Your task to perform on an android device: search for starred emails in the gmail app Image 0: 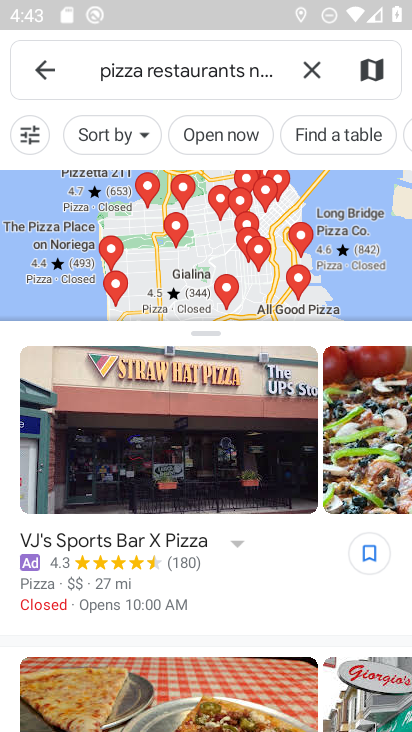
Step 0: press home button
Your task to perform on an android device: search for starred emails in the gmail app Image 1: 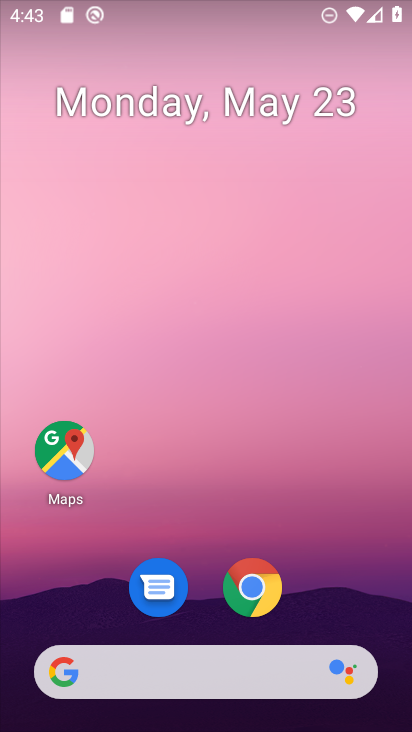
Step 1: drag from (196, 618) to (204, 253)
Your task to perform on an android device: search for starred emails in the gmail app Image 2: 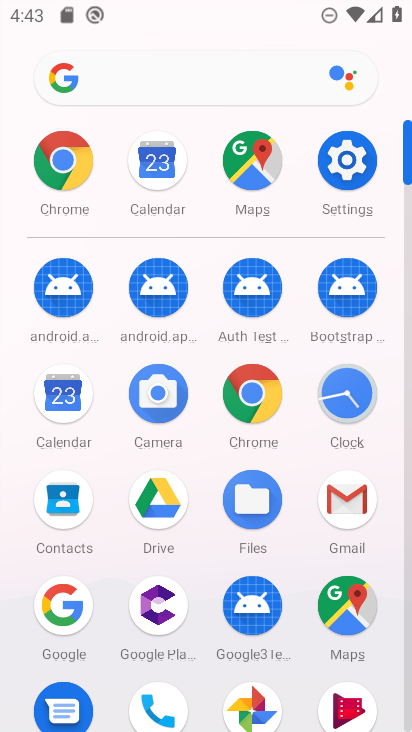
Step 2: click (357, 518)
Your task to perform on an android device: search for starred emails in the gmail app Image 3: 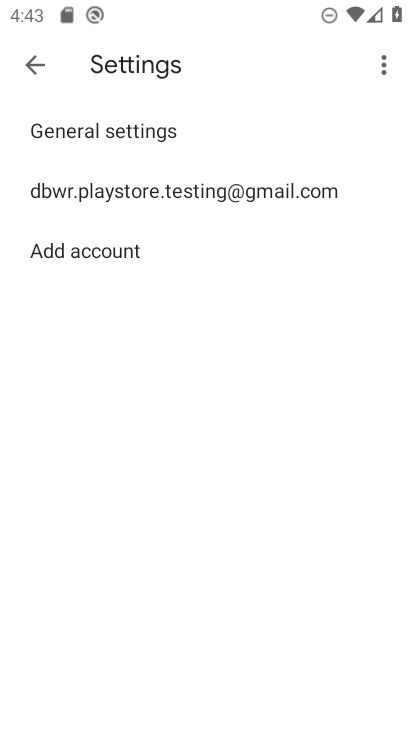
Step 3: click (36, 57)
Your task to perform on an android device: search for starred emails in the gmail app Image 4: 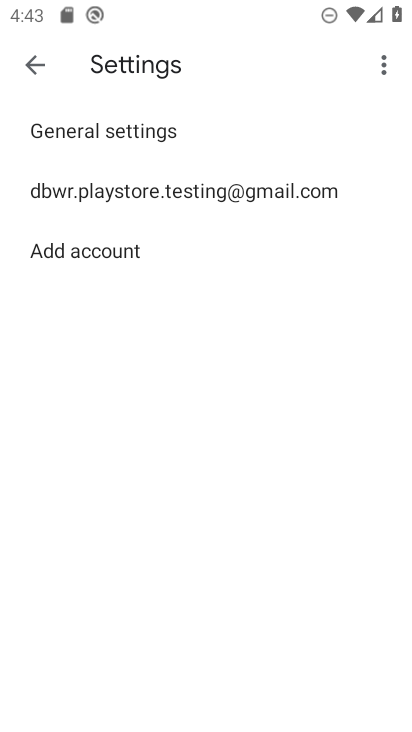
Step 4: click (37, 54)
Your task to perform on an android device: search for starred emails in the gmail app Image 5: 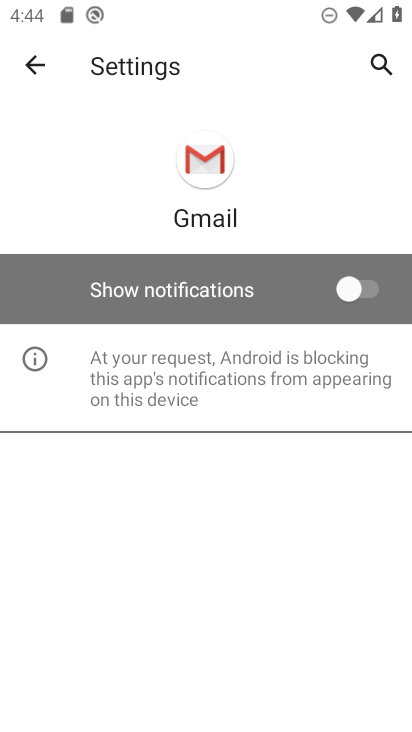
Step 5: click (39, 50)
Your task to perform on an android device: search for starred emails in the gmail app Image 6: 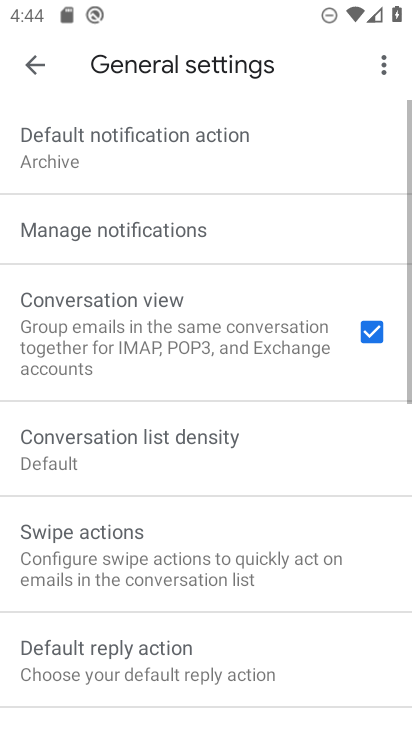
Step 6: click (18, 43)
Your task to perform on an android device: search for starred emails in the gmail app Image 7: 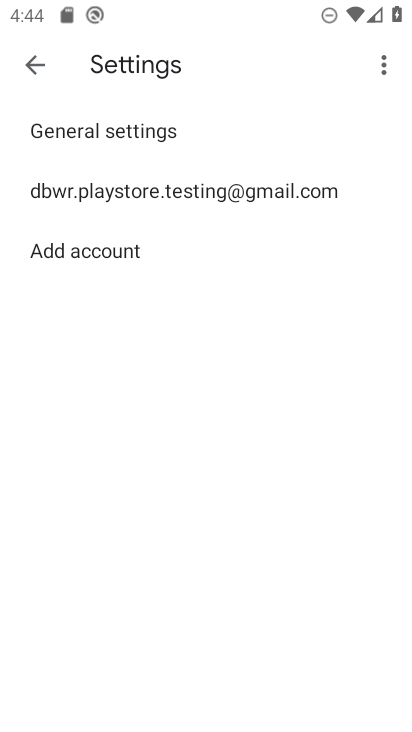
Step 7: click (27, 67)
Your task to perform on an android device: search for starred emails in the gmail app Image 8: 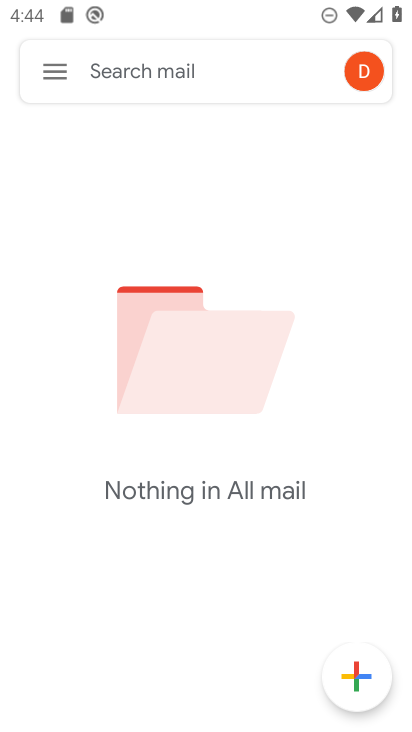
Step 8: click (53, 63)
Your task to perform on an android device: search for starred emails in the gmail app Image 9: 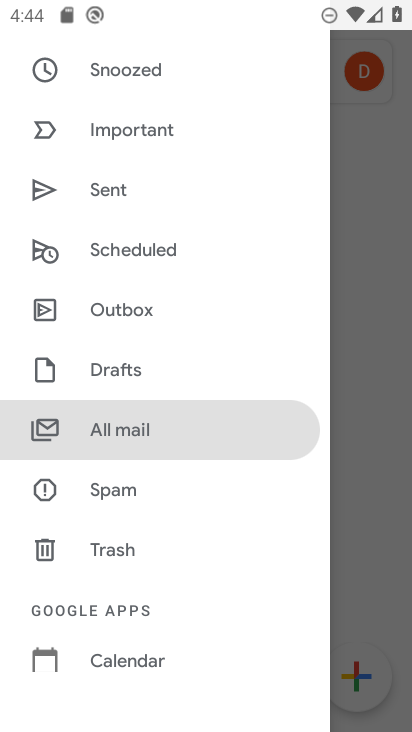
Step 9: drag from (163, 315) to (181, 524)
Your task to perform on an android device: search for starred emails in the gmail app Image 10: 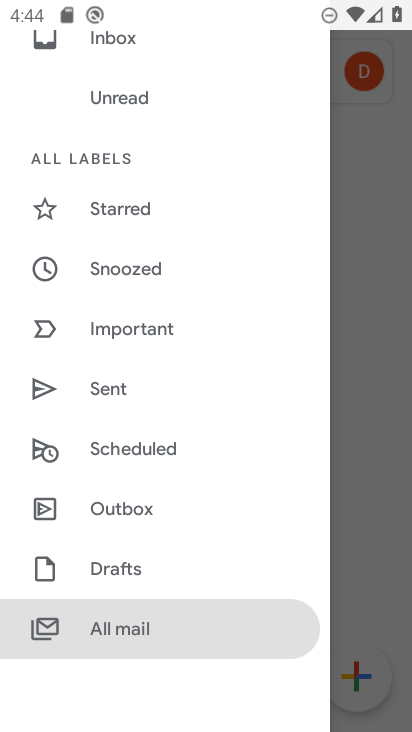
Step 10: click (119, 199)
Your task to perform on an android device: search for starred emails in the gmail app Image 11: 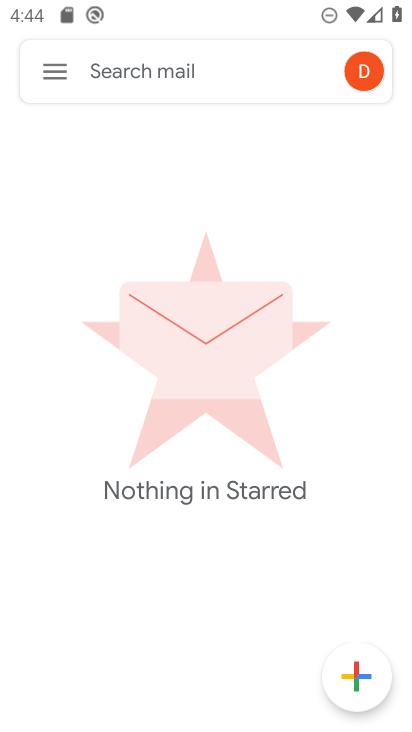
Step 11: task complete